Your task to perform on an android device: open sync settings in chrome Image 0: 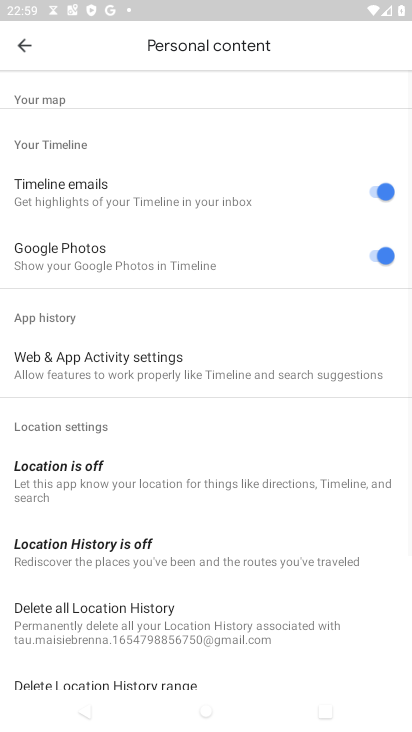
Step 0: press home button
Your task to perform on an android device: open sync settings in chrome Image 1: 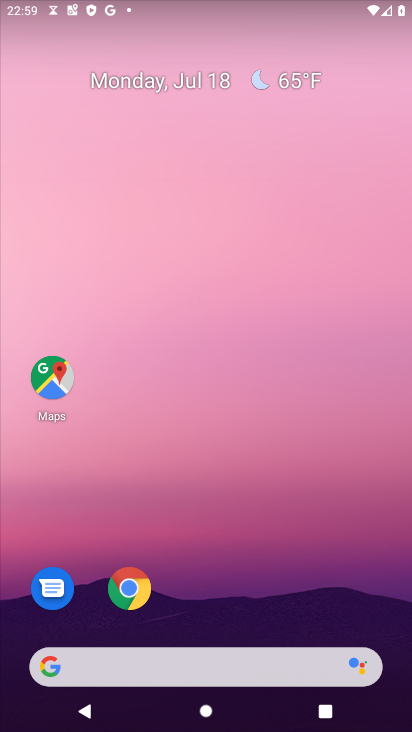
Step 1: click (130, 590)
Your task to perform on an android device: open sync settings in chrome Image 2: 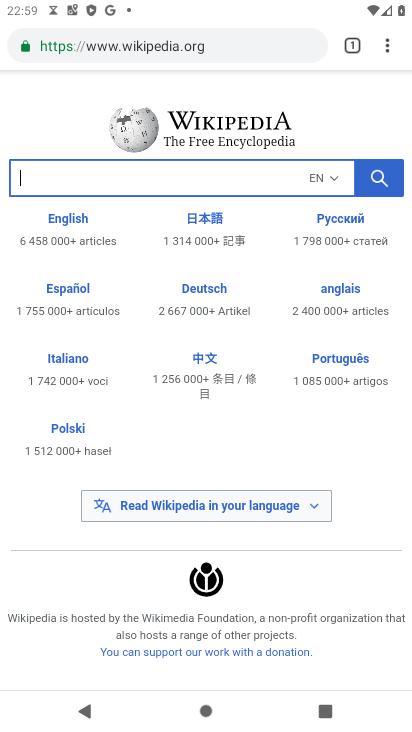
Step 2: click (388, 44)
Your task to perform on an android device: open sync settings in chrome Image 3: 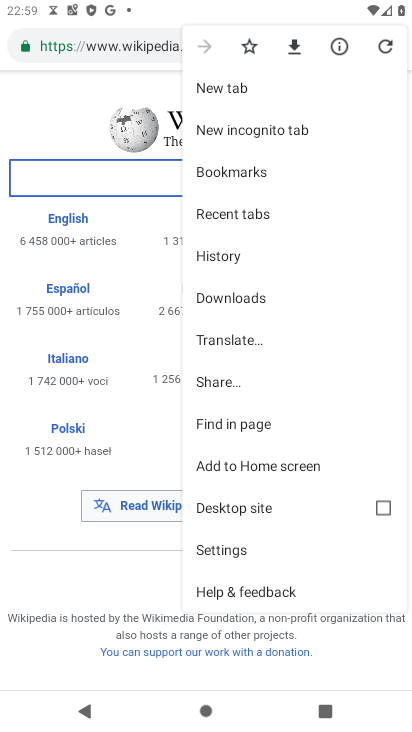
Step 3: click (239, 550)
Your task to perform on an android device: open sync settings in chrome Image 4: 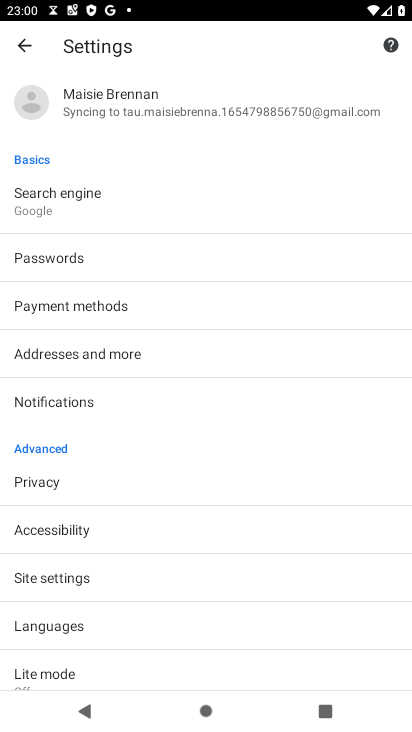
Step 4: click (77, 581)
Your task to perform on an android device: open sync settings in chrome Image 5: 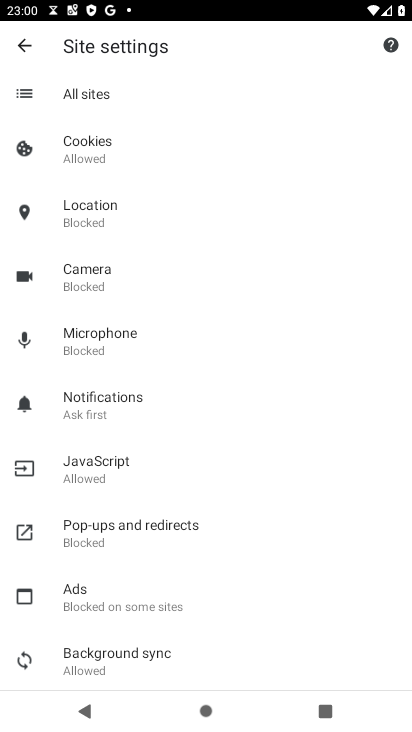
Step 5: drag from (135, 586) to (158, 430)
Your task to perform on an android device: open sync settings in chrome Image 6: 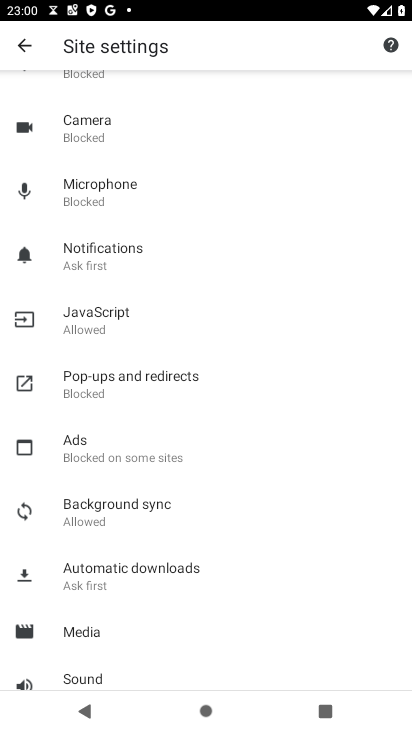
Step 6: click (127, 501)
Your task to perform on an android device: open sync settings in chrome Image 7: 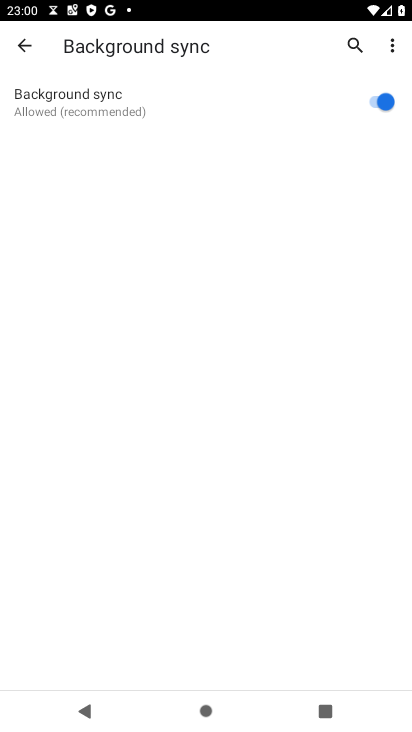
Step 7: task complete